Your task to perform on an android device: Search for "amazon basics triple a" on costco.com, select the first entry, add it to the cart, then select checkout. Image 0: 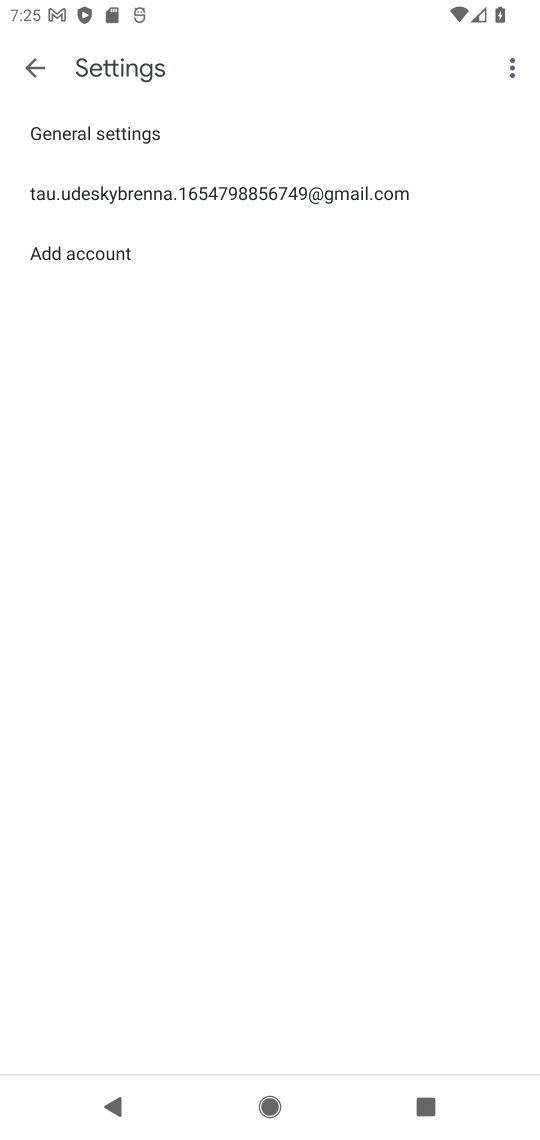
Step 0: press home button
Your task to perform on an android device: Search for "amazon basics triple a" on costco.com, select the first entry, add it to the cart, then select checkout. Image 1: 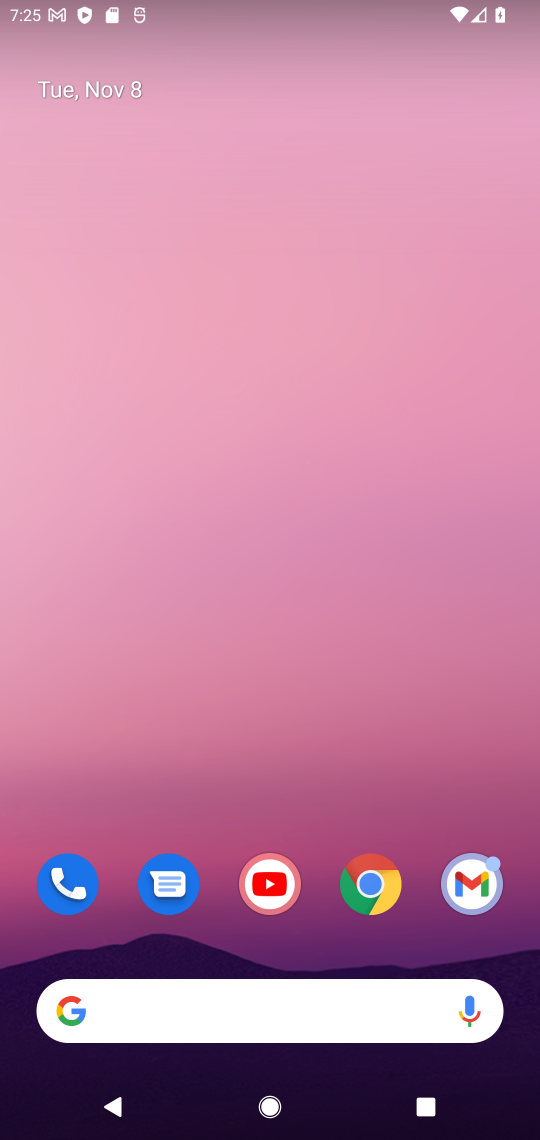
Step 1: drag from (286, 983) to (284, 359)
Your task to perform on an android device: Search for "amazon basics triple a" on costco.com, select the first entry, add it to the cart, then select checkout. Image 2: 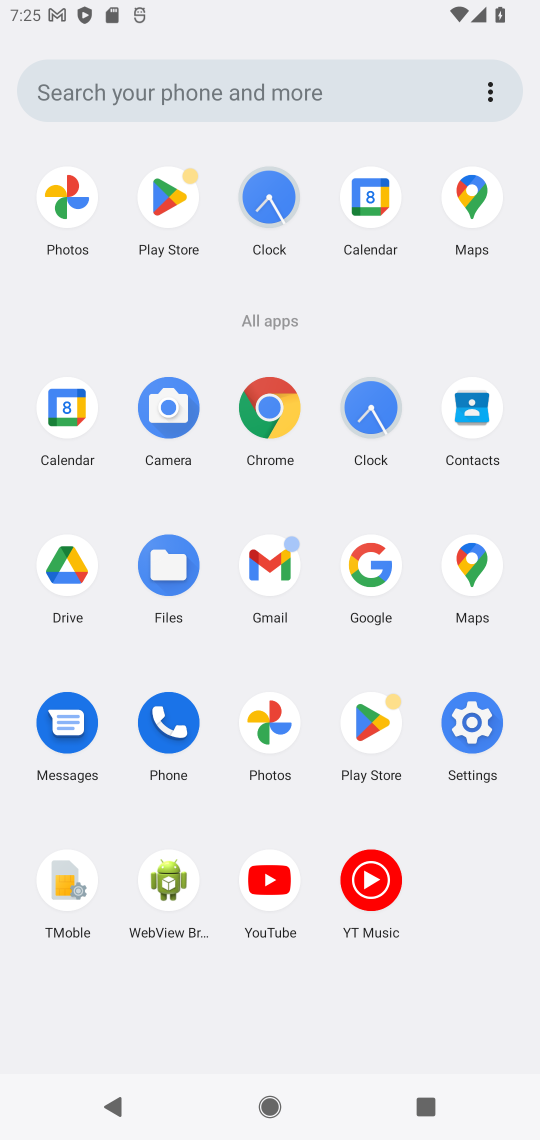
Step 2: click (362, 572)
Your task to perform on an android device: Search for "amazon basics triple a" on costco.com, select the first entry, add it to the cart, then select checkout. Image 3: 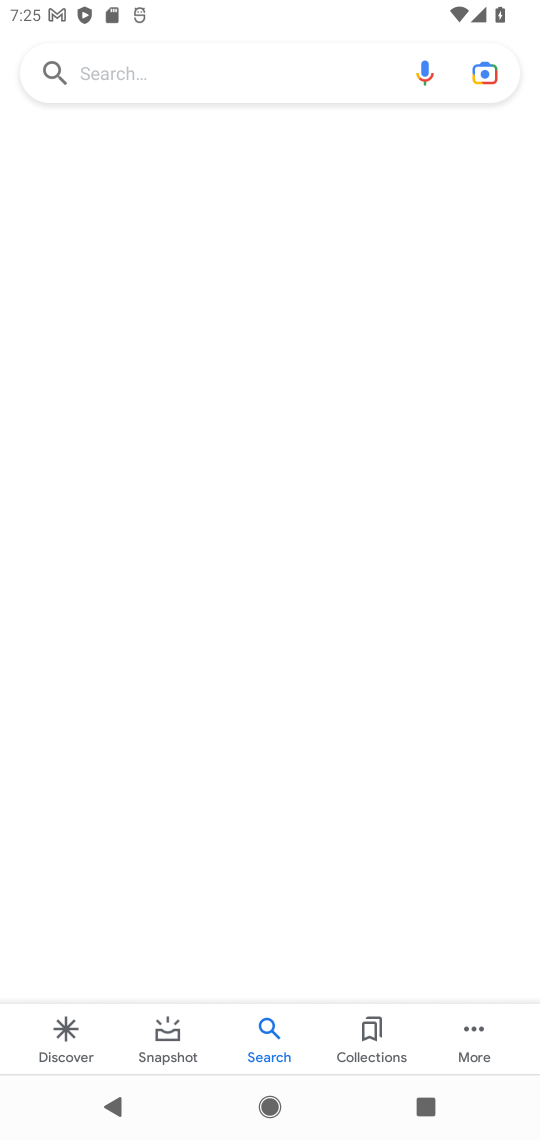
Step 3: click (261, 92)
Your task to perform on an android device: Search for "amazon basics triple a" on costco.com, select the first entry, add it to the cart, then select checkout. Image 4: 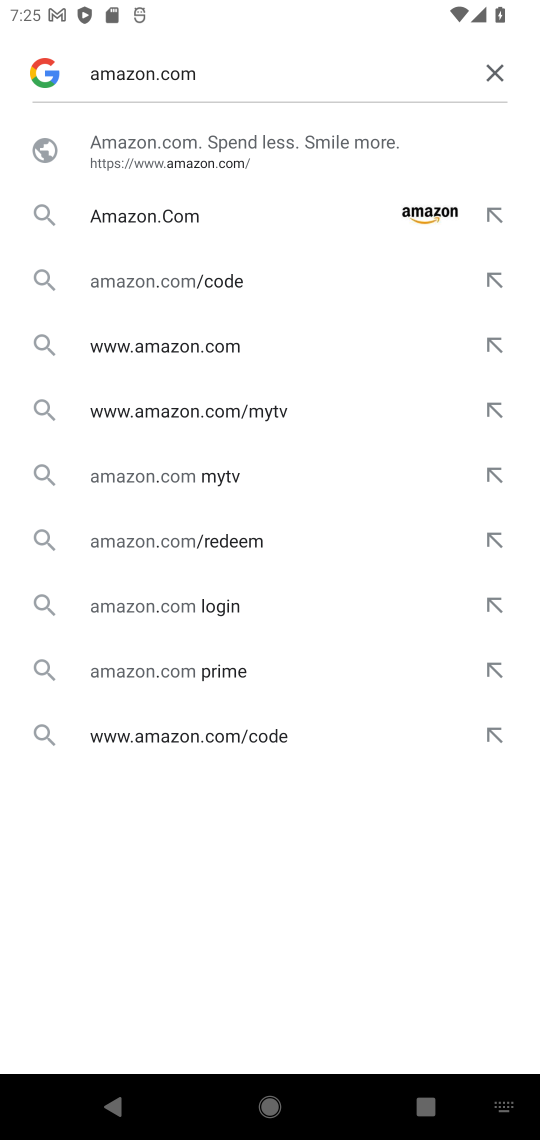
Step 4: type "costco.com"
Your task to perform on an android device: Search for "amazon basics triple a" on costco.com, select the first entry, add it to the cart, then select checkout. Image 5: 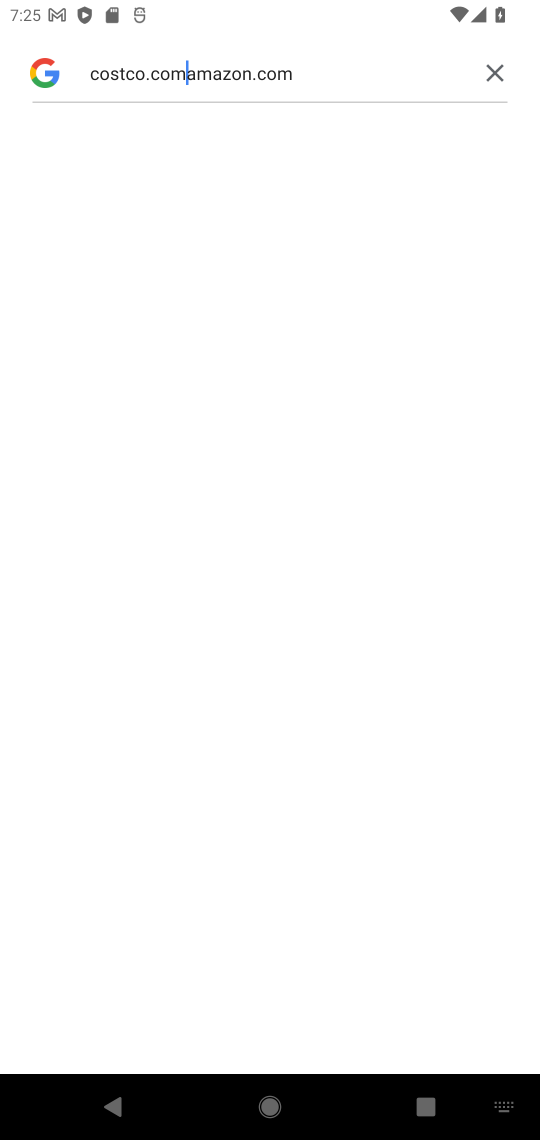
Step 5: click (497, 71)
Your task to perform on an android device: Search for "amazon basics triple a" on costco.com, select the first entry, add it to the cart, then select checkout. Image 6: 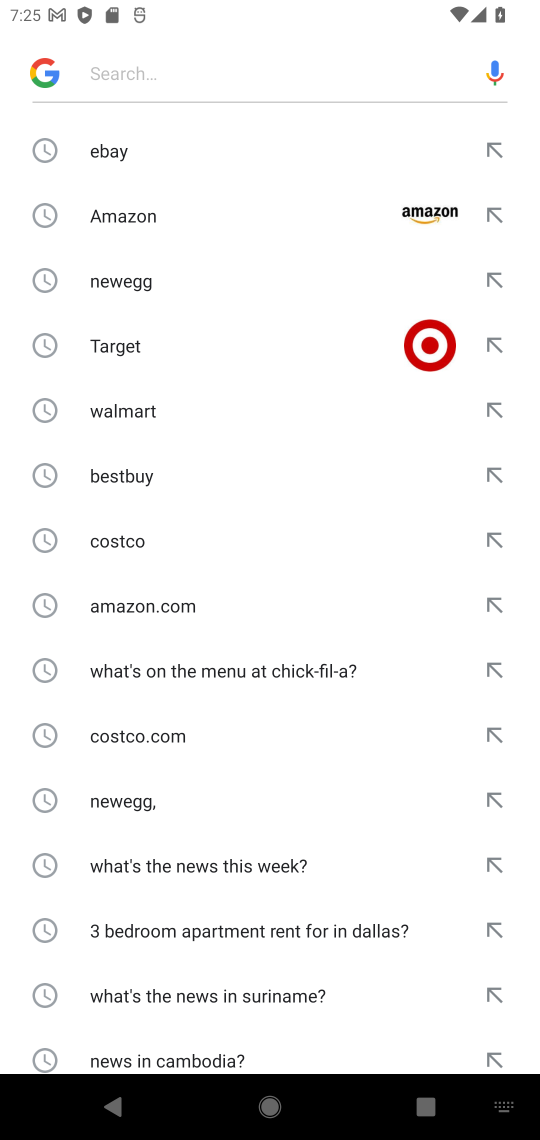
Step 6: type "costco.com"
Your task to perform on an android device: Search for "amazon basics triple a" on costco.com, select the first entry, add it to the cart, then select checkout. Image 7: 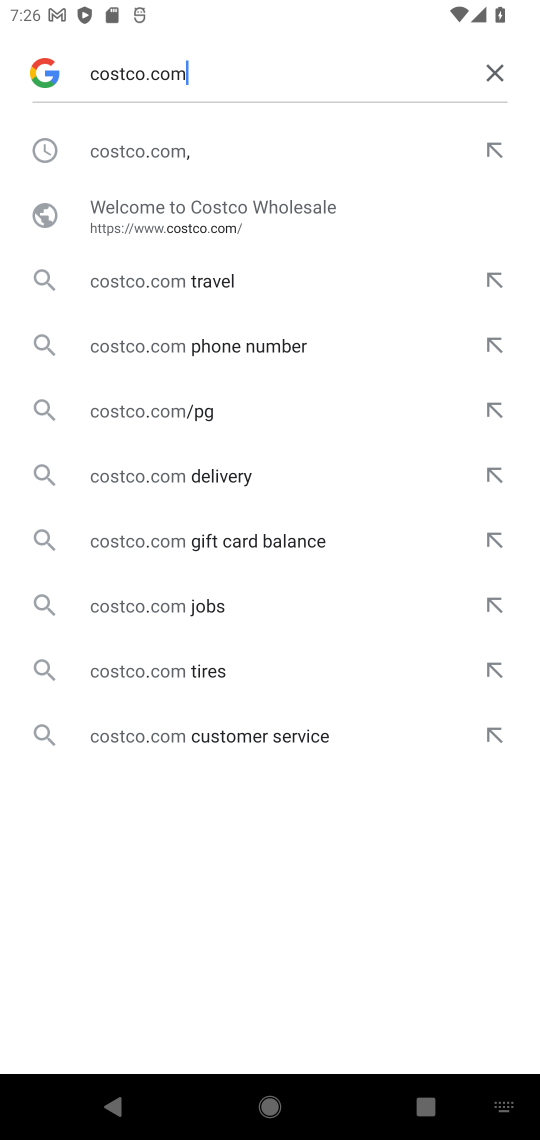
Step 7: click (157, 214)
Your task to perform on an android device: Search for "amazon basics triple a" on costco.com, select the first entry, add it to the cart, then select checkout. Image 8: 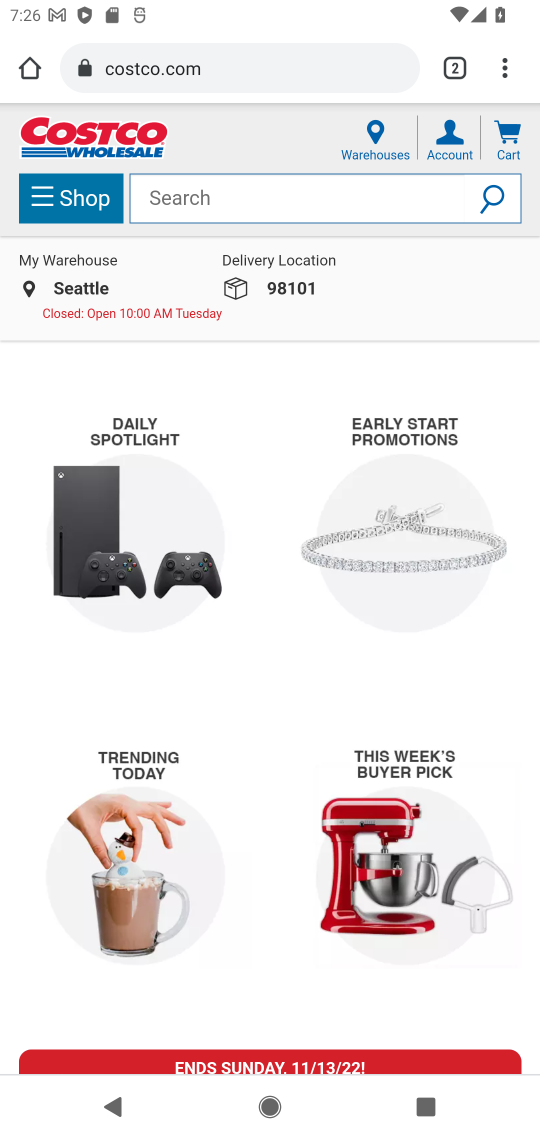
Step 8: click (251, 200)
Your task to perform on an android device: Search for "amazon basics triple a" on costco.com, select the first entry, add it to the cart, then select checkout. Image 9: 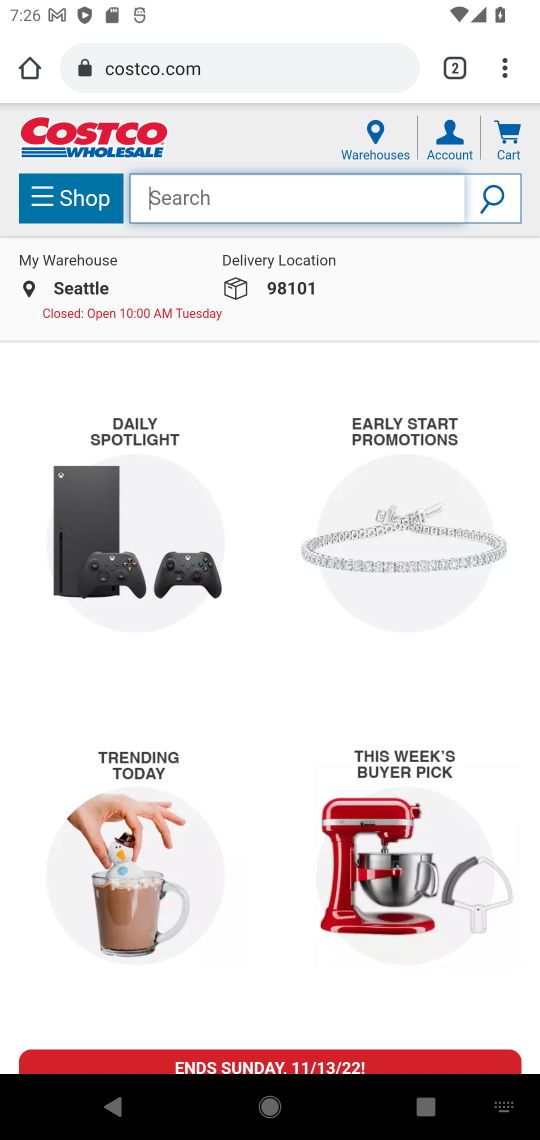
Step 9: type "amazon basics triple"
Your task to perform on an android device: Search for "amazon basics triple a" on costco.com, select the first entry, add it to the cart, then select checkout. Image 10: 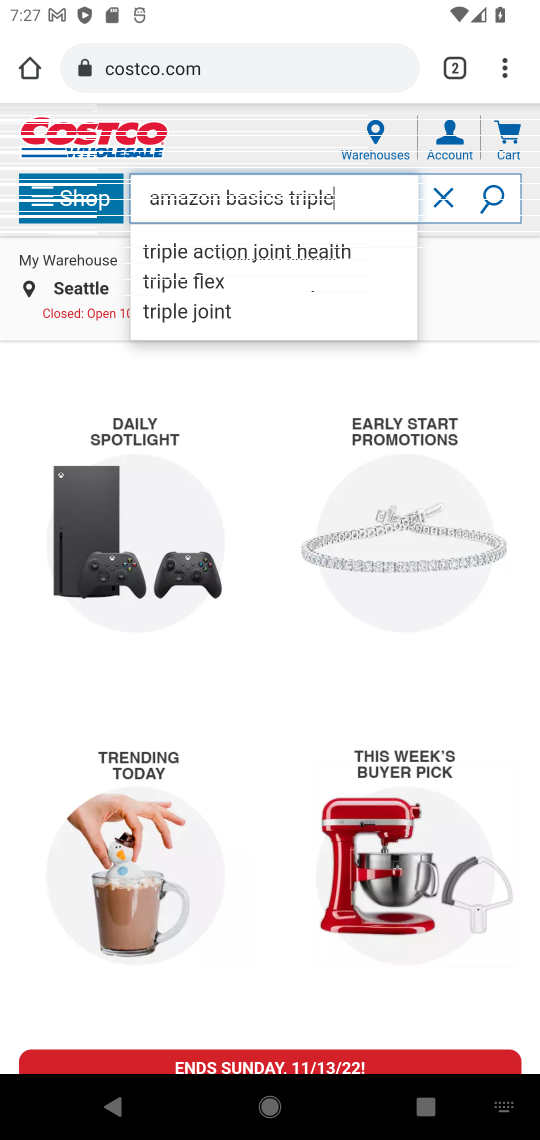
Step 10: task complete